Your task to perform on an android device: change your default location settings in chrome Image 0: 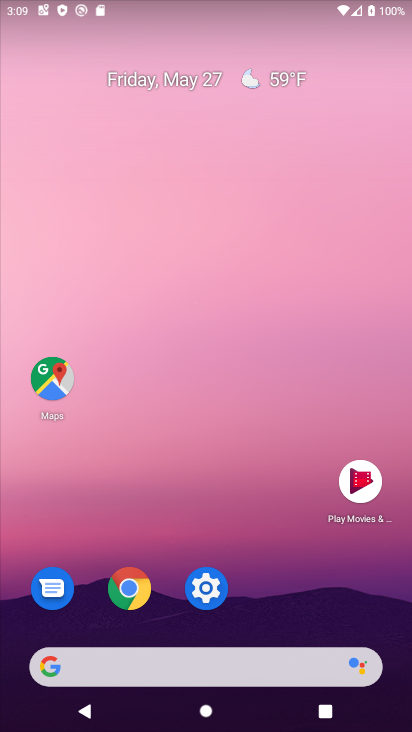
Step 0: drag from (367, 684) to (210, 67)
Your task to perform on an android device: change your default location settings in chrome Image 1: 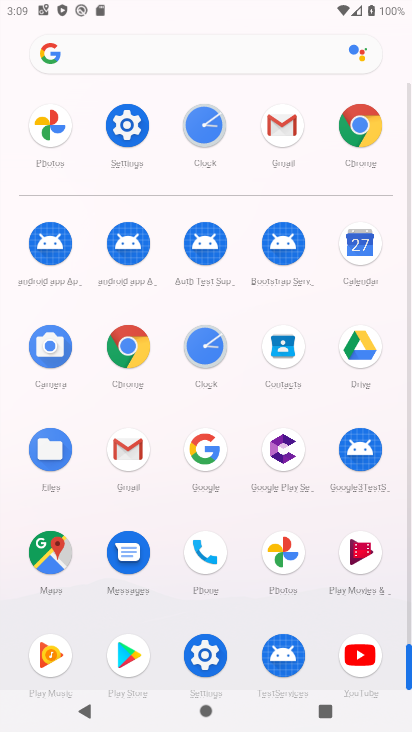
Step 1: click (367, 127)
Your task to perform on an android device: change your default location settings in chrome Image 2: 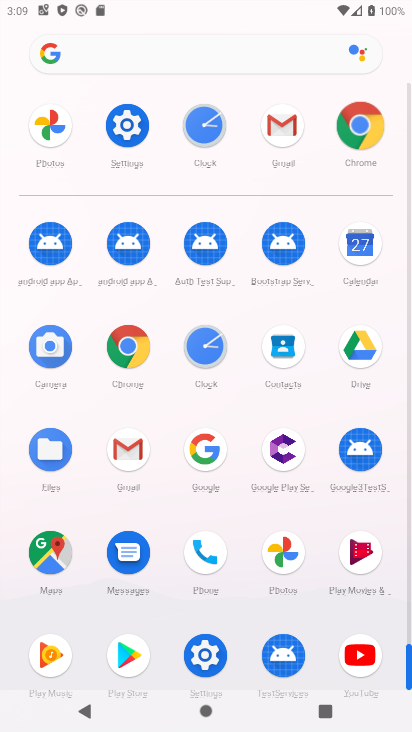
Step 2: click (367, 127)
Your task to perform on an android device: change your default location settings in chrome Image 3: 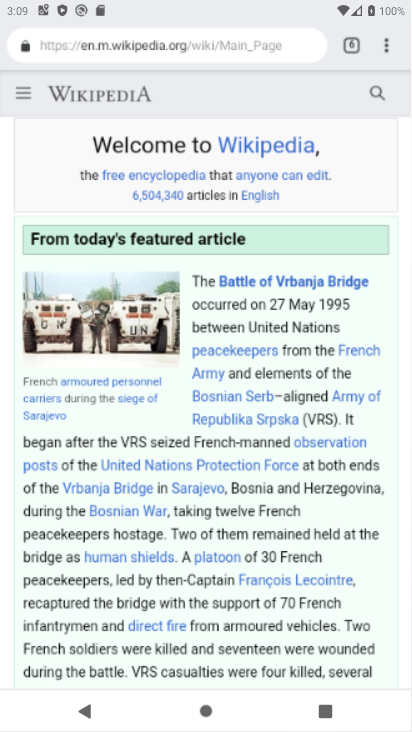
Step 3: click (365, 128)
Your task to perform on an android device: change your default location settings in chrome Image 4: 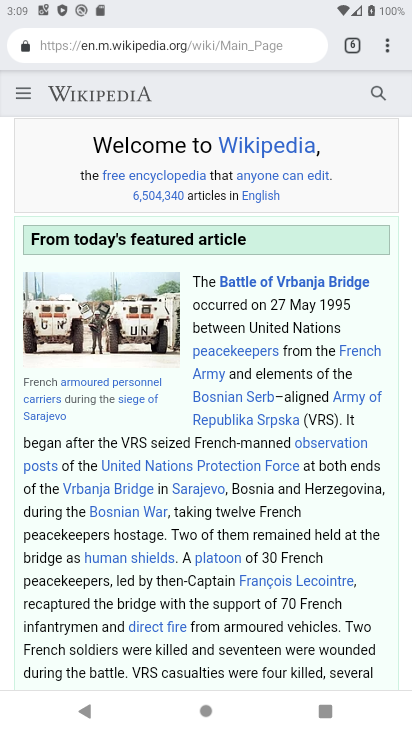
Step 4: click (387, 45)
Your task to perform on an android device: change your default location settings in chrome Image 5: 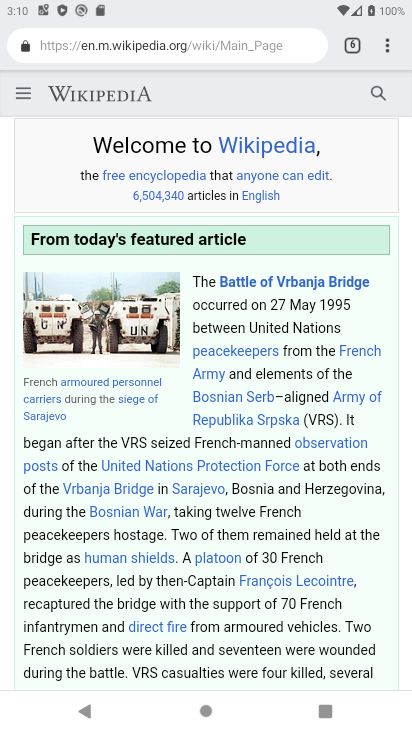
Step 5: press back button
Your task to perform on an android device: change your default location settings in chrome Image 6: 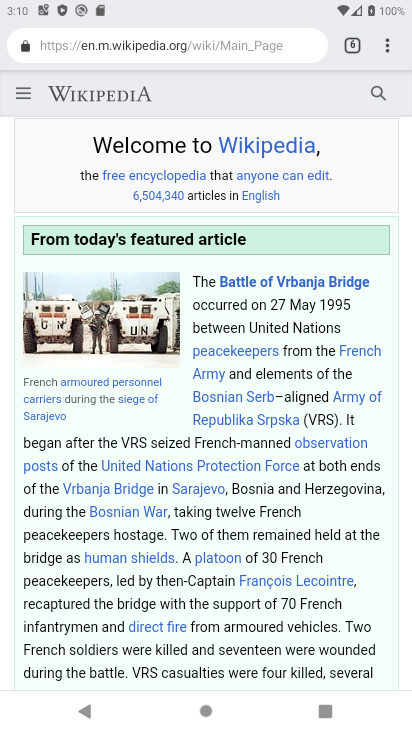
Step 6: press back button
Your task to perform on an android device: change your default location settings in chrome Image 7: 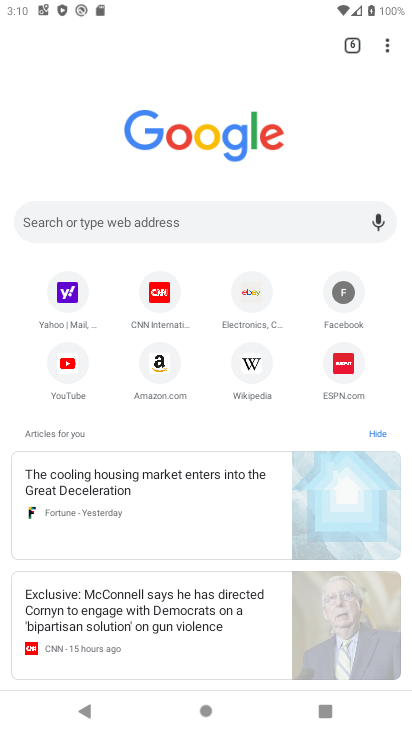
Step 7: press back button
Your task to perform on an android device: change your default location settings in chrome Image 8: 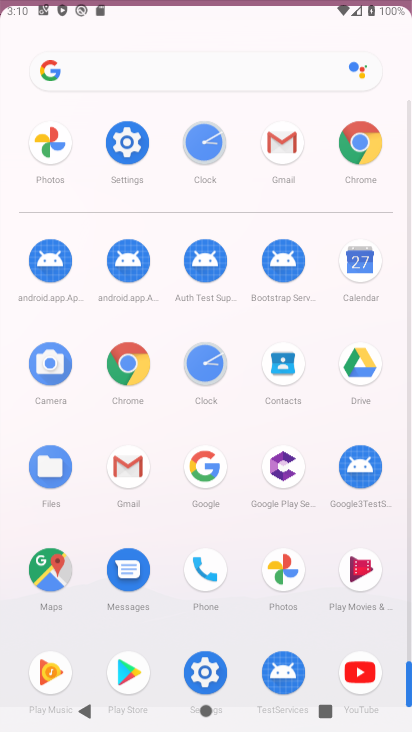
Step 8: press back button
Your task to perform on an android device: change your default location settings in chrome Image 9: 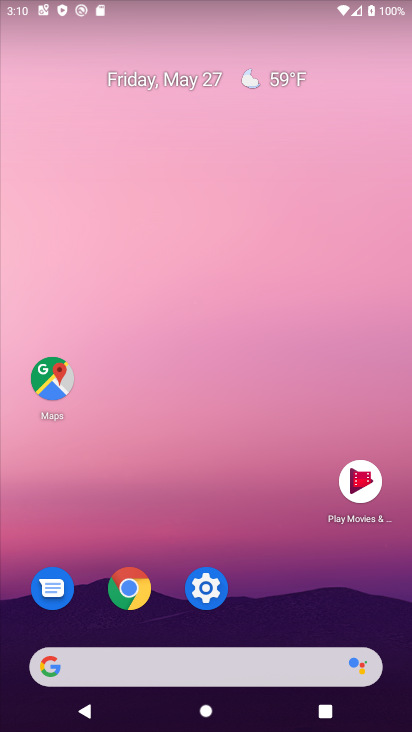
Step 9: click (384, 47)
Your task to perform on an android device: change your default location settings in chrome Image 10: 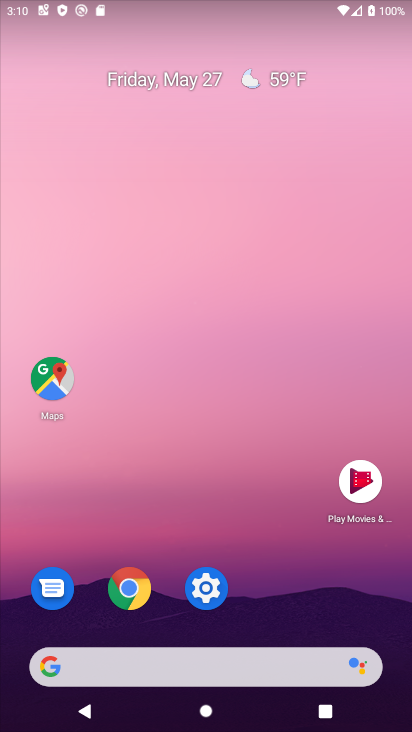
Step 10: drag from (271, 718) to (96, 14)
Your task to perform on an android device: change your default location settings in chrome Image 11: 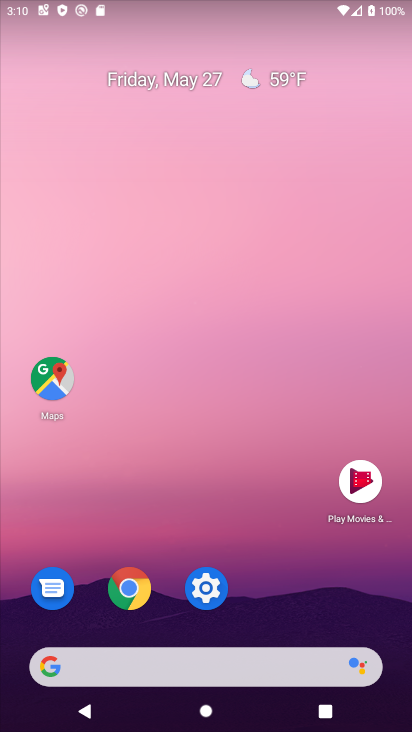
Step 11: drag from (205, 583) to (29, 20)
Your task to perform on an android device: change your default location settings in chrome Image 12: 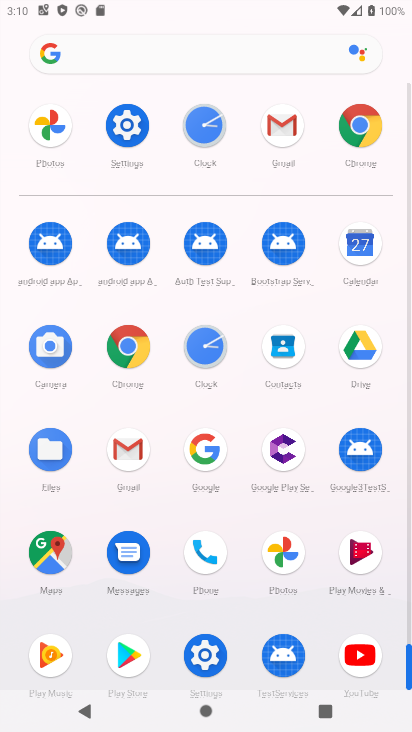
Step 12: click (366, 127)
Your task to perform on an android device: change your default location settings in chrome Image 13: 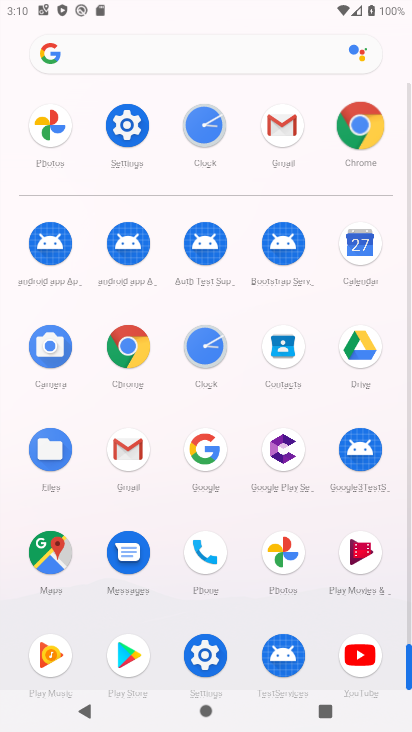
Step 13: click (366, 124)
Your task to perform on an android device: change your default location settings in chrome Image 14: 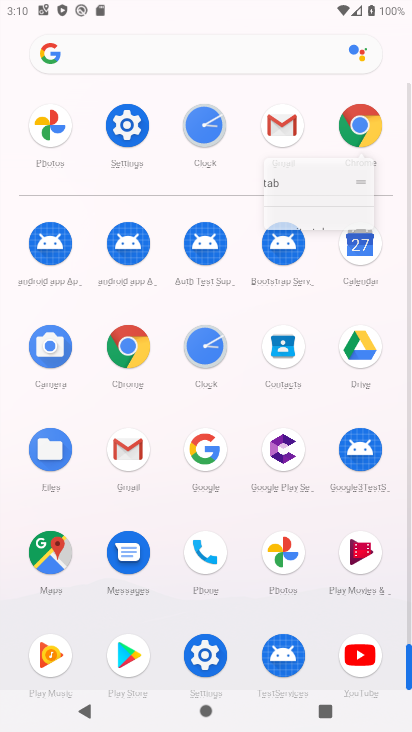
Step 14: click (368, 121)
Your task to perform on an android device: change your default location settings in chrome Image 15: 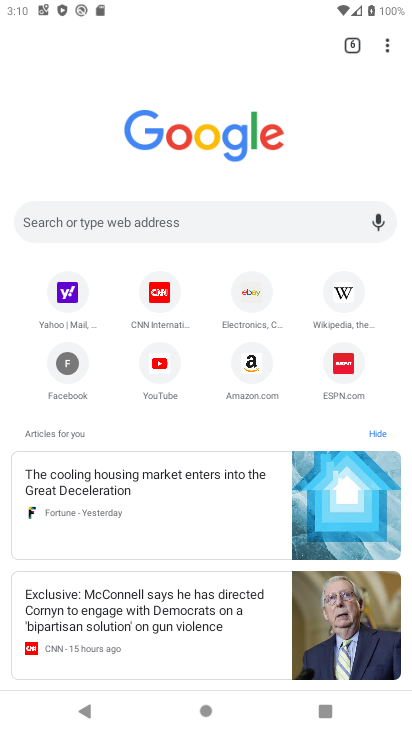
Step 15: drag from (388, 52) to (222, 390)
Your task to perform on an android device: change your default location settings in chrome Image 16: 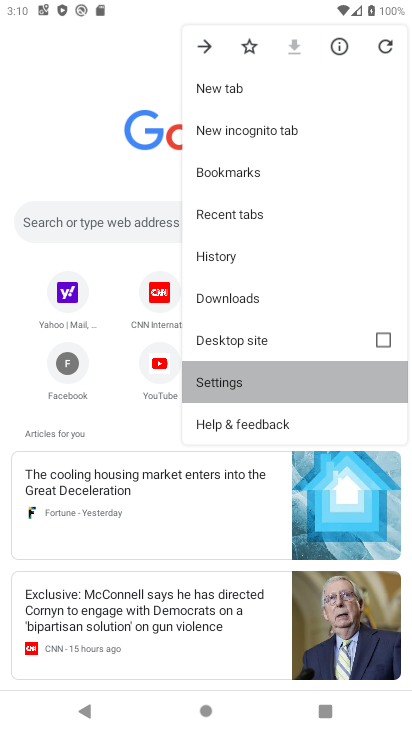
Step 16: click (222, 390)
Your task to perform on an android device: change your default location settings in chrome Image 17: 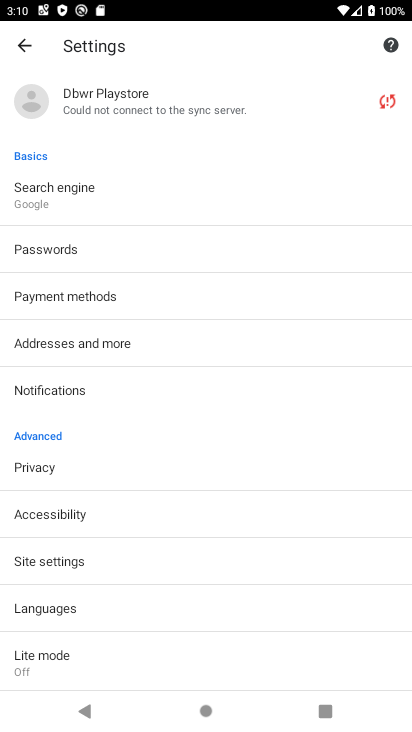
Step 17: click (51, 564)
Your task to perform on an android device: change your default location settings in chrome Image 18: 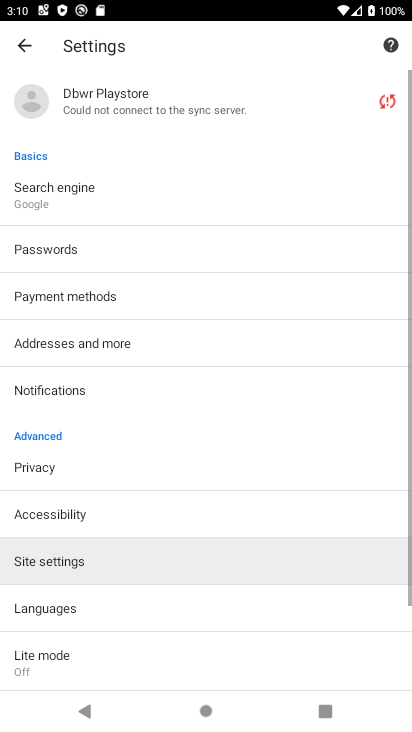
Step 18: click (51, 565)
Your task to perform on an android device: change your default location settings in chrome Image 19: 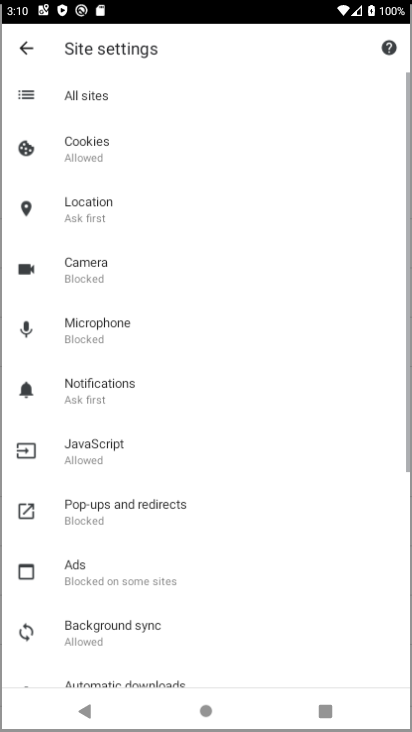
Step 19: click (51, 567)
Your task to perform on an android device: change your default location settings in chrome Image 20: 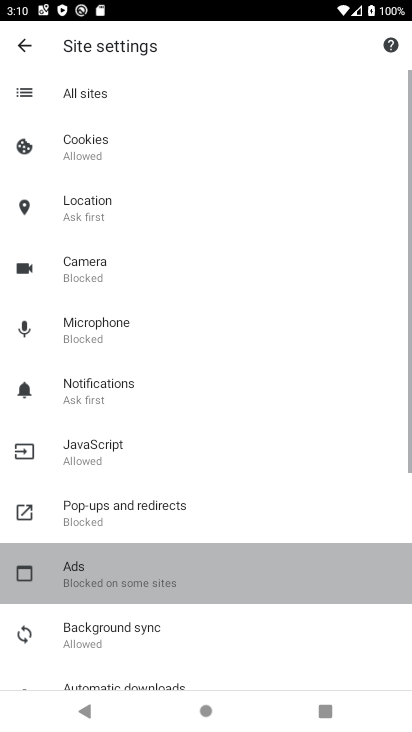
Step 20: click (52, 568)
Your task to perform on an android device: change your default location settings in chrome Image 21: 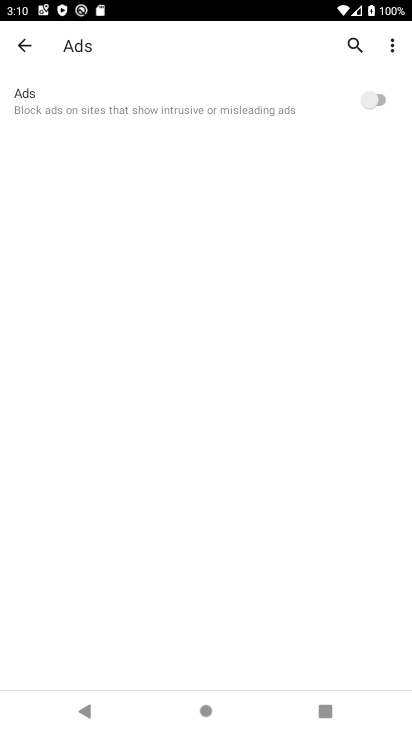
Step 21: click (26, 42)
Your task to perform on an android device: change your default location settings in chrome Image 22: 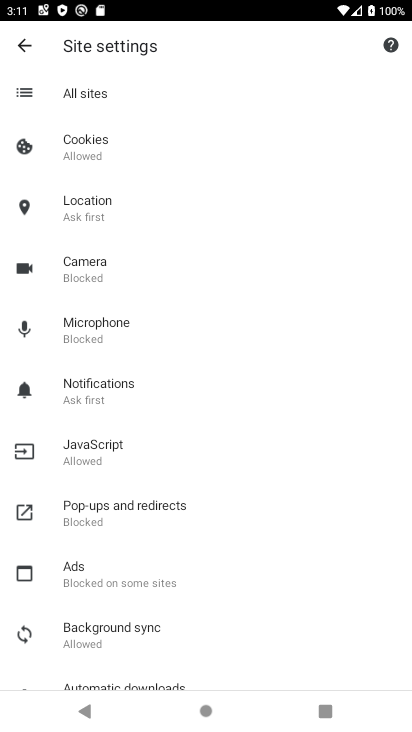
Step 22: click (90, 199)
Your task to perform on an android device: change your default location settings in chrome Image 23: 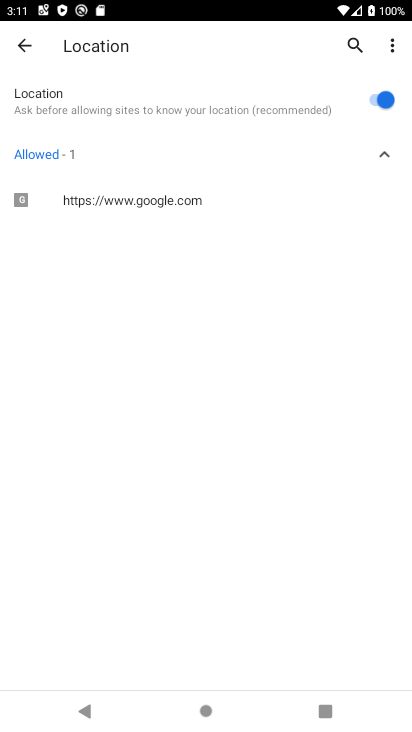
Step 23: task complete